Your task to perform on an android device: turn on data saver in the chrome app Image 0: 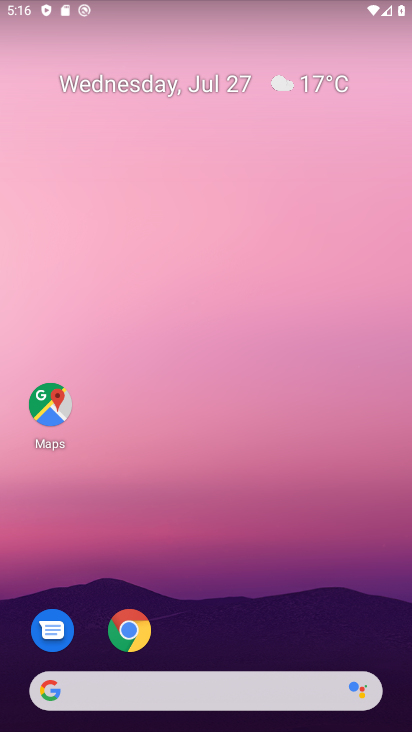
Step 0: press home button
Your task to perform on an android device: turn on data saver in the chrome app Image 1: 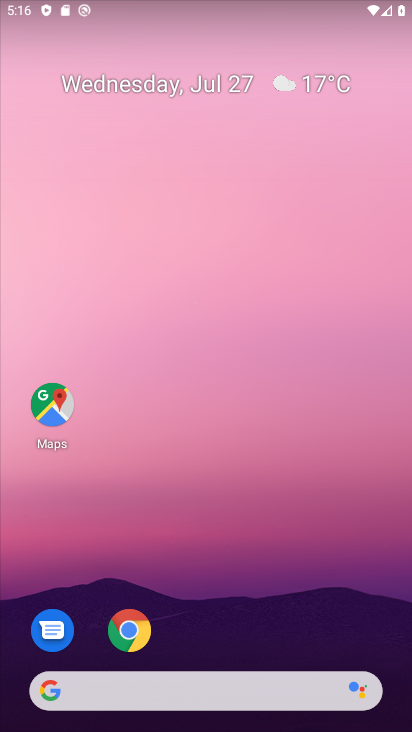
Step 1: drag from (182, 636) to (202, 26)
Your task to perform on an android device: turn on data saver in the chrome app Image 2: 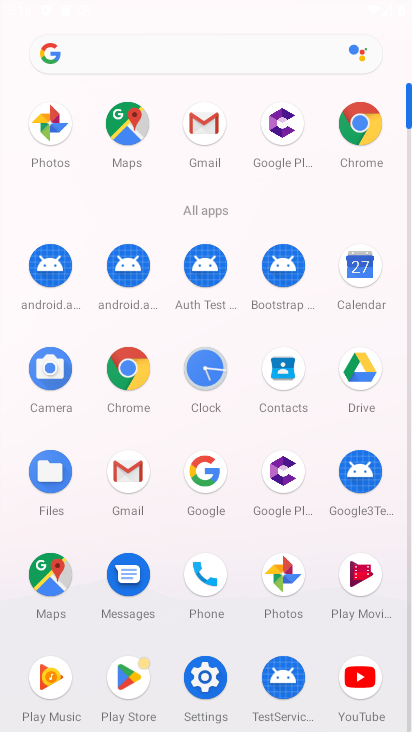
Step 2: click (358, 121)
Your task to perform on an android device: turn on data saver in the chrome app Image 3: 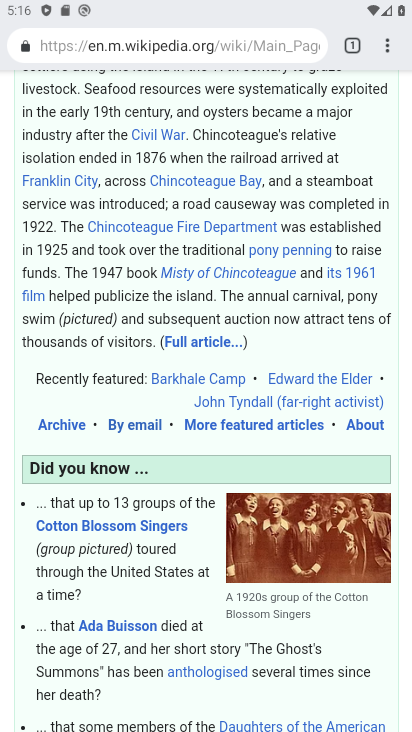
Step 3: click (383, 43)
Your task to perform on an android device: turn on data saver in the chrome app Image 4: 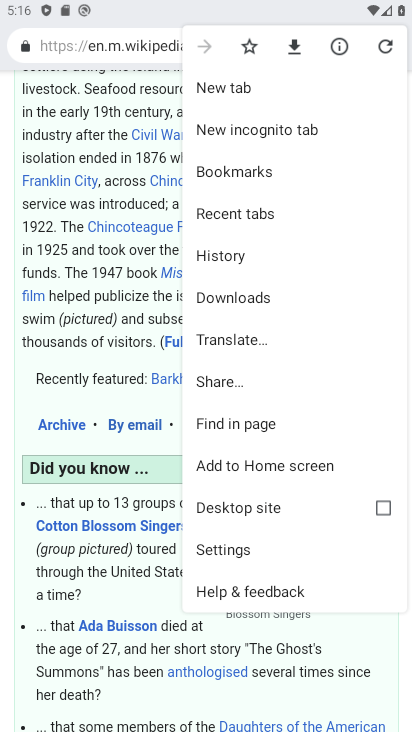
Step 4: click (260, 545)
Your task to perform on an android device: turn on data saver in the chrome app Image 5: 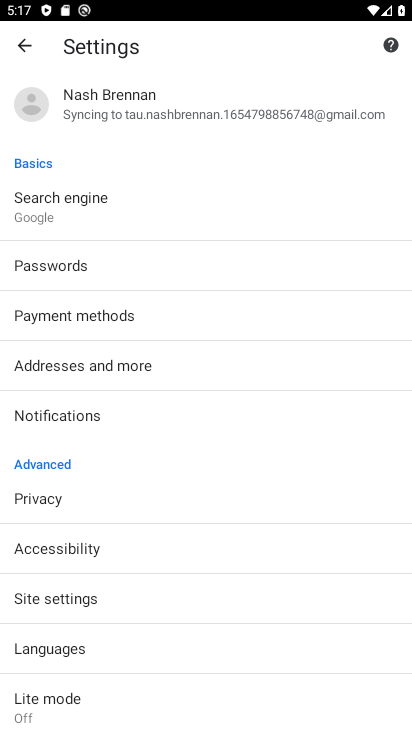
Step 5: click (94, 692)
Your task to perform on an android device: turn on data saver in the chrome app Image 6: 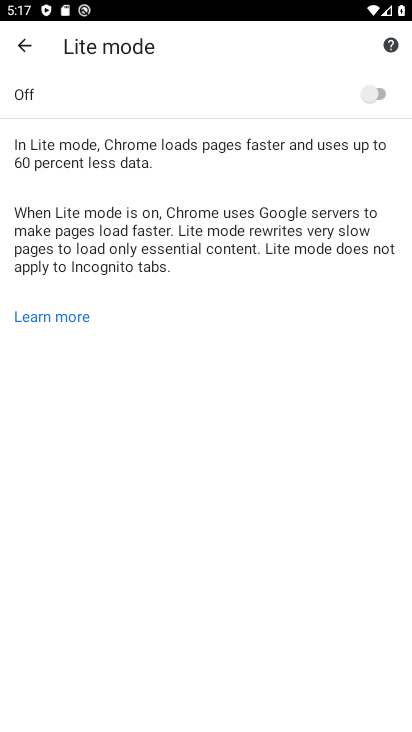
Step 6: click (373, 86)
Your task to perform on an android device: turn on data saver in the chrome app Image 7: 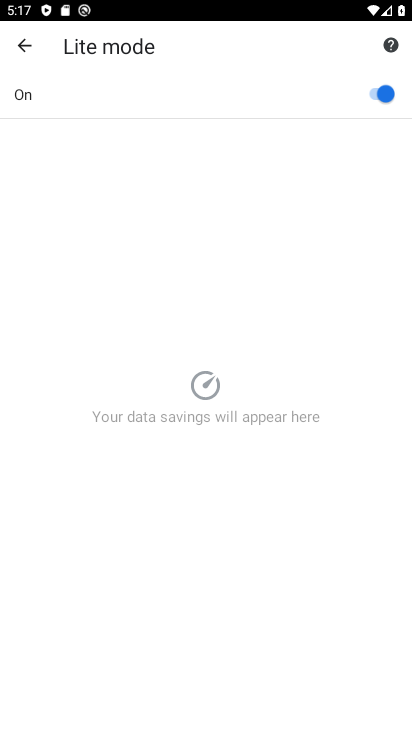
Step 7: task complete